Your task to perform on an android device: turn smart compose on in the gmail app Image 0: 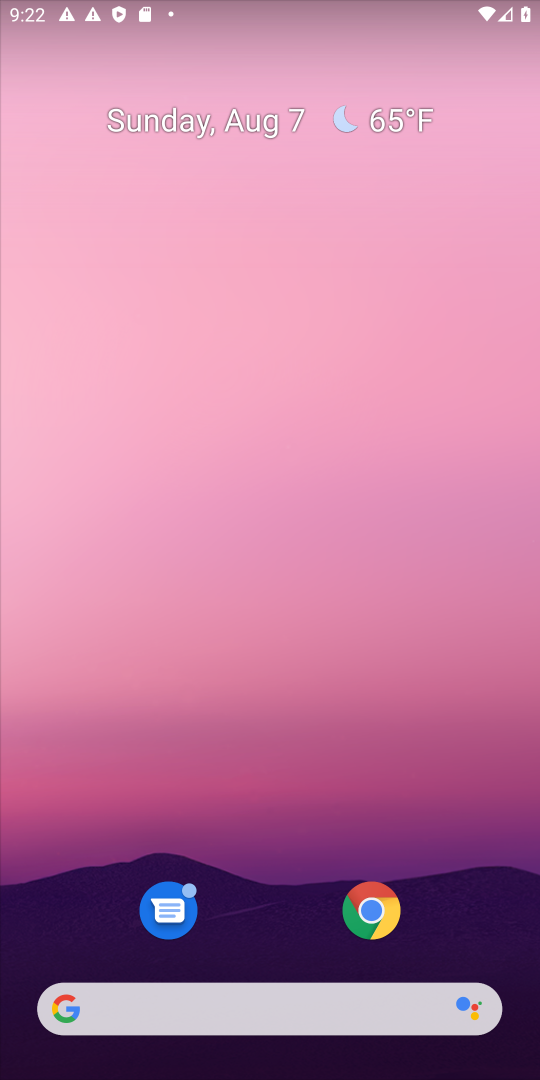
Step 0: drag from (255, 826) to (303, 592)
Your task to perform on an android device: turn smart compose on in the gmail app Image 1: 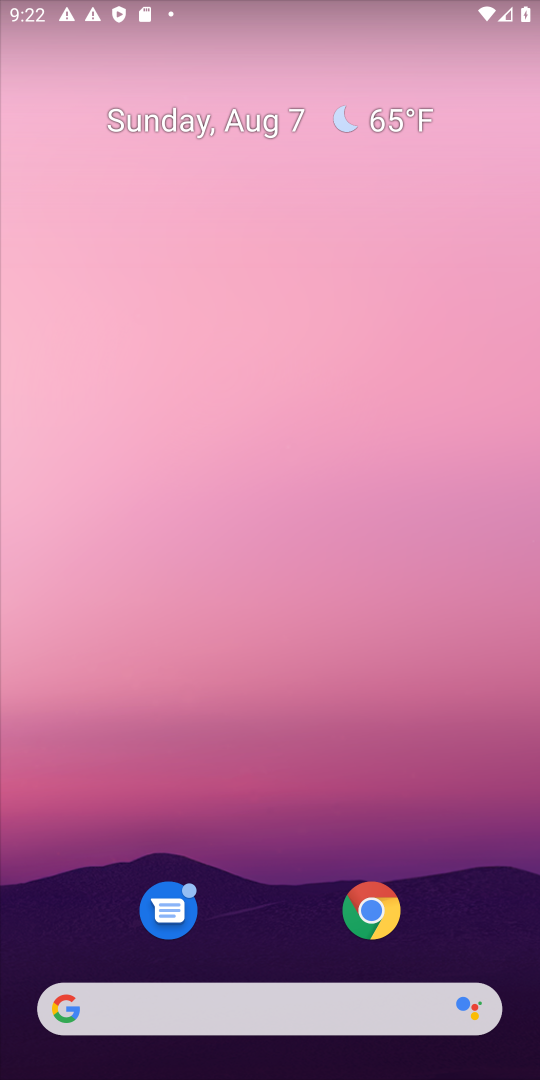
Step 1: drag from (293, 971) to (293, 278)
Your task to perform on an android device: turn smart compose on in the gmail app Image 2: 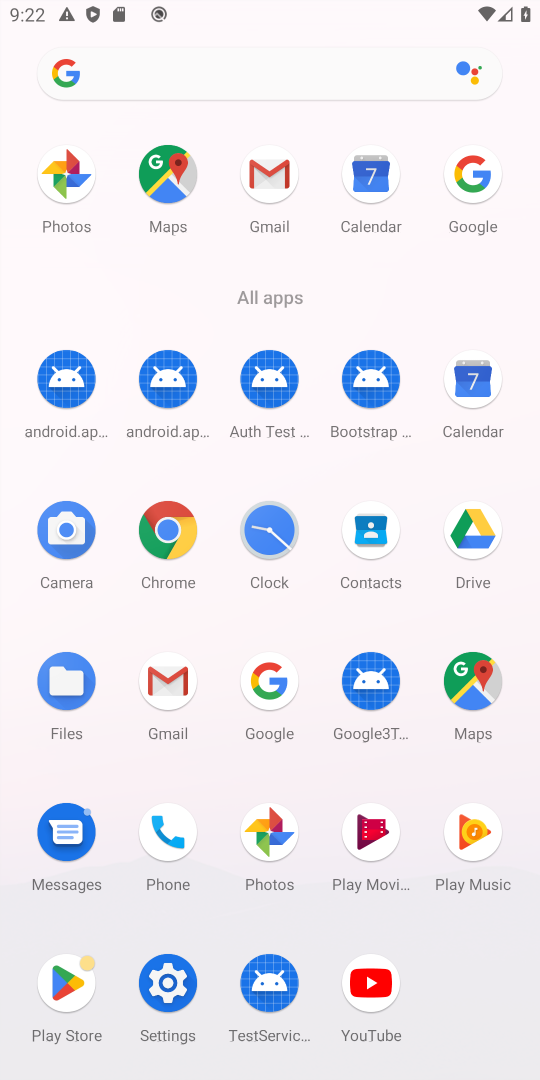
Step 2: click (259, 190)
Your task to perform on an android device: turn smart compose on in the gmail app Image 3: 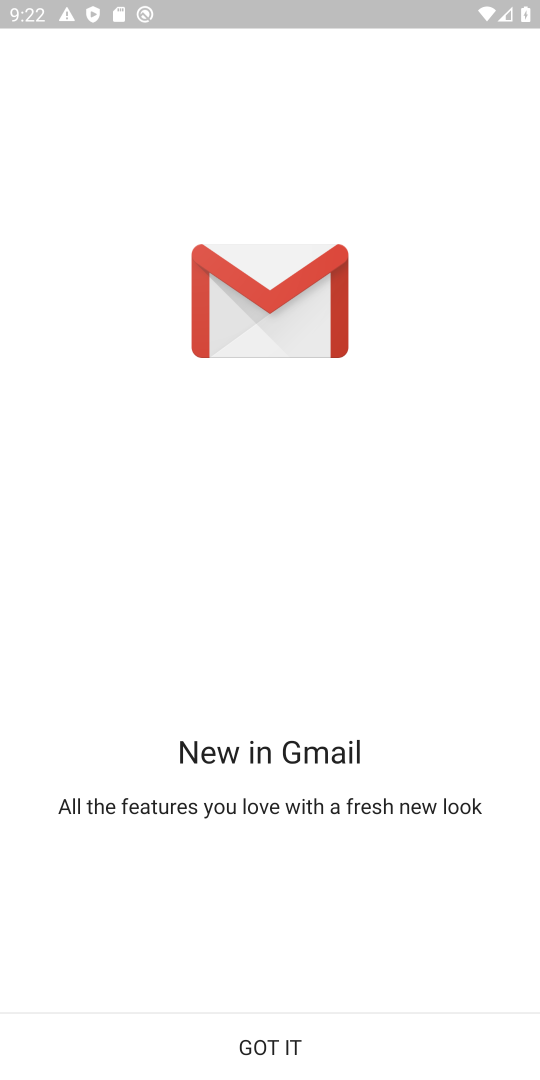
Step 3: click (265, 1042)
Your task to perform on an android device: turn smart compose on in the gmail app Image 4: 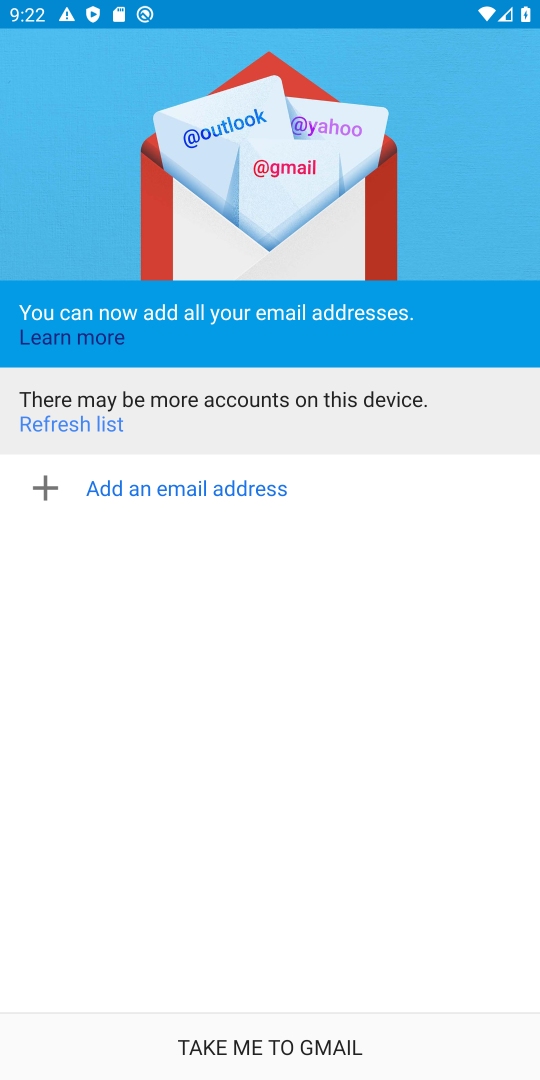
Step 4: click (265, 1042)
Your task to perform on an android device: turn smart compose on in the gmail app Image 5: 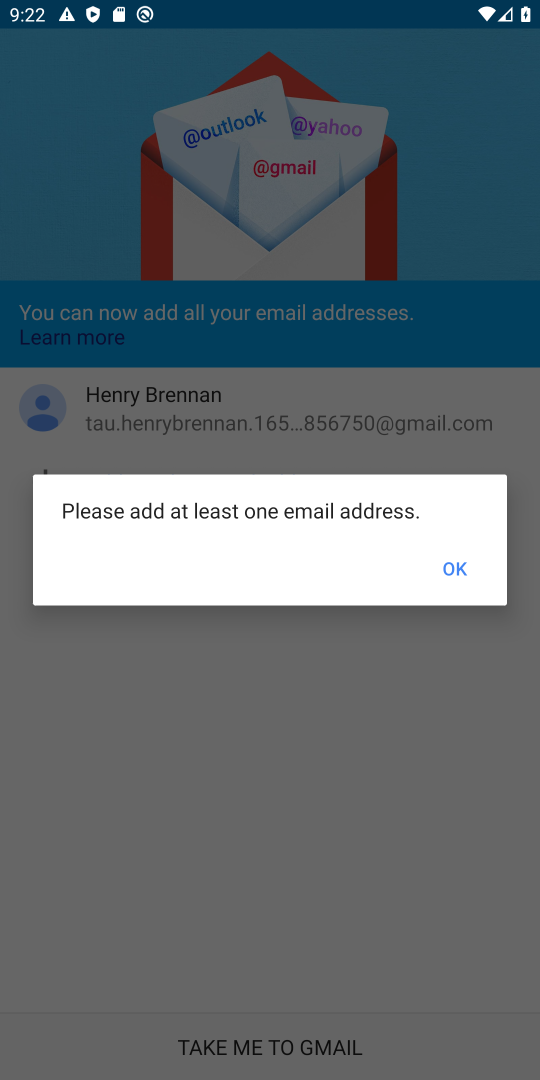
Step 5: click (454, 570)
Your task to perform on an android device: turn smart compose on in the gmail app Image 6: 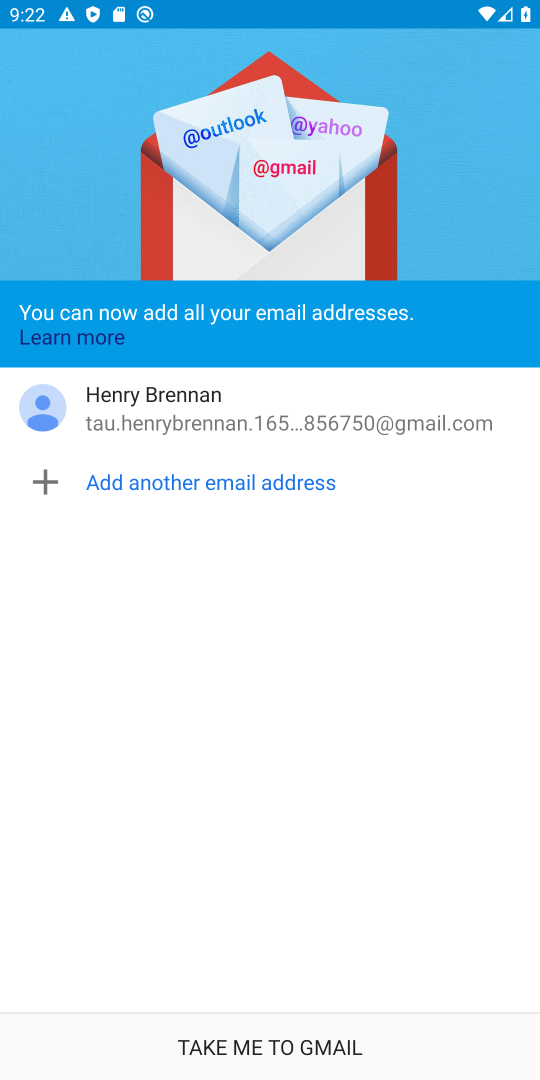
Step 6: click (313, 1053)
Your task to perform on an android device: turn smart compose on in the gmail app Image 7: 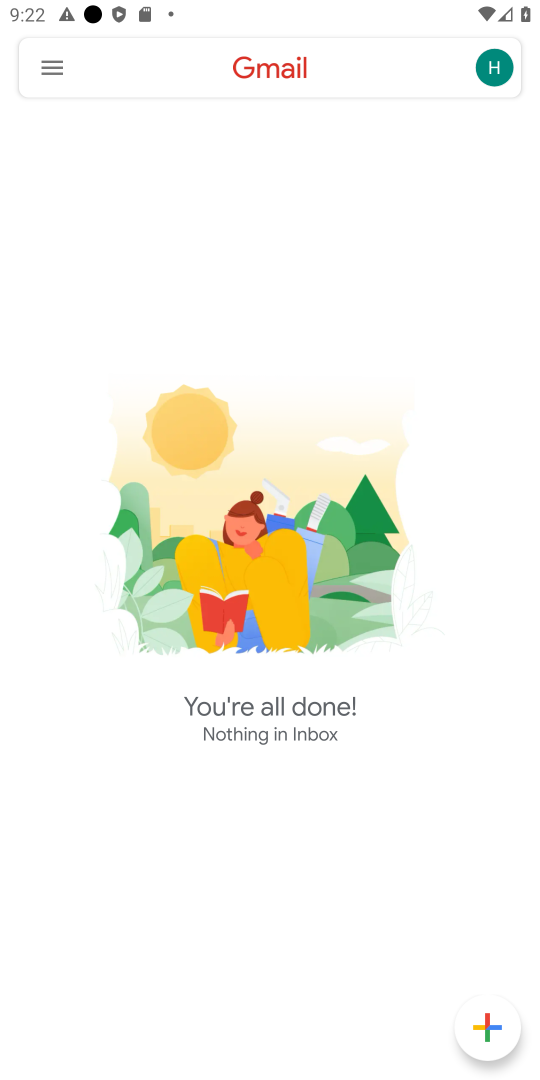
Step 7: click (47, 62)
Your task to perform on an android device: turn smart compose on in the gmail app Image 8: 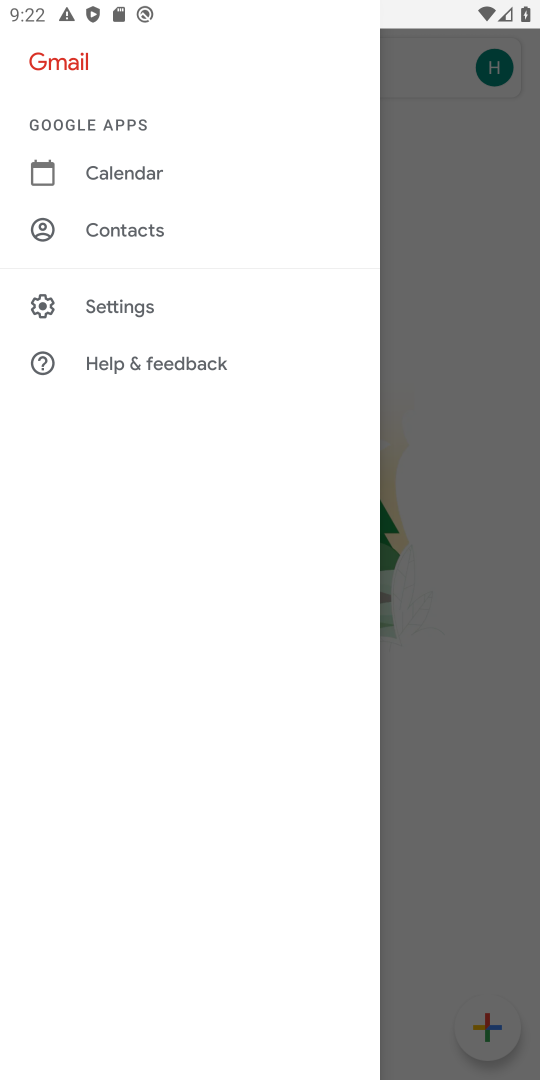
Step 8: click (122, 300)
Your task to perform on an android device: turn smart compose on in the gmail app Image 9: 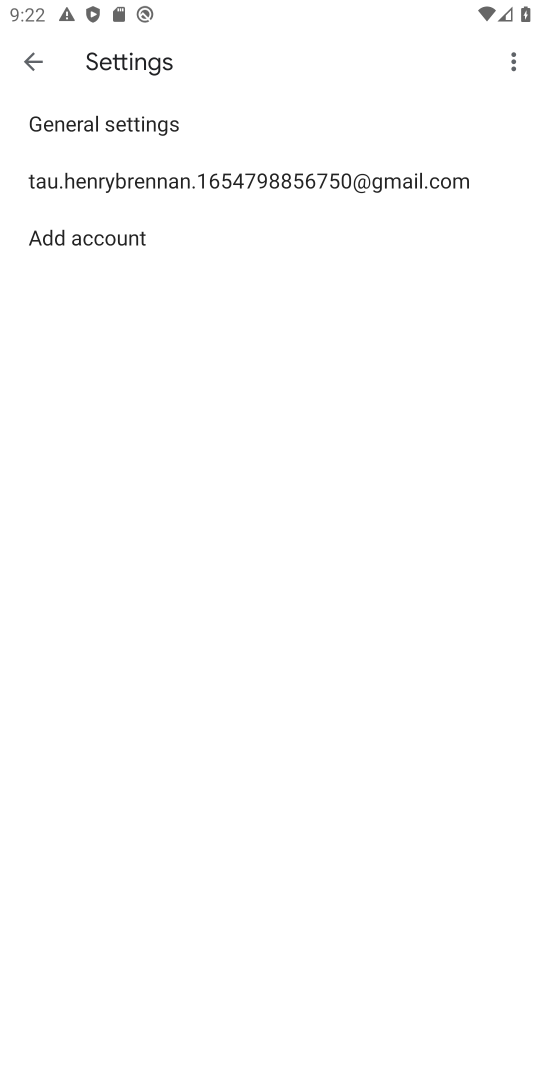
Step 9: click (79, 174)
Your task to perform on an android device: turn smart compose on in the gmail app Image 10: 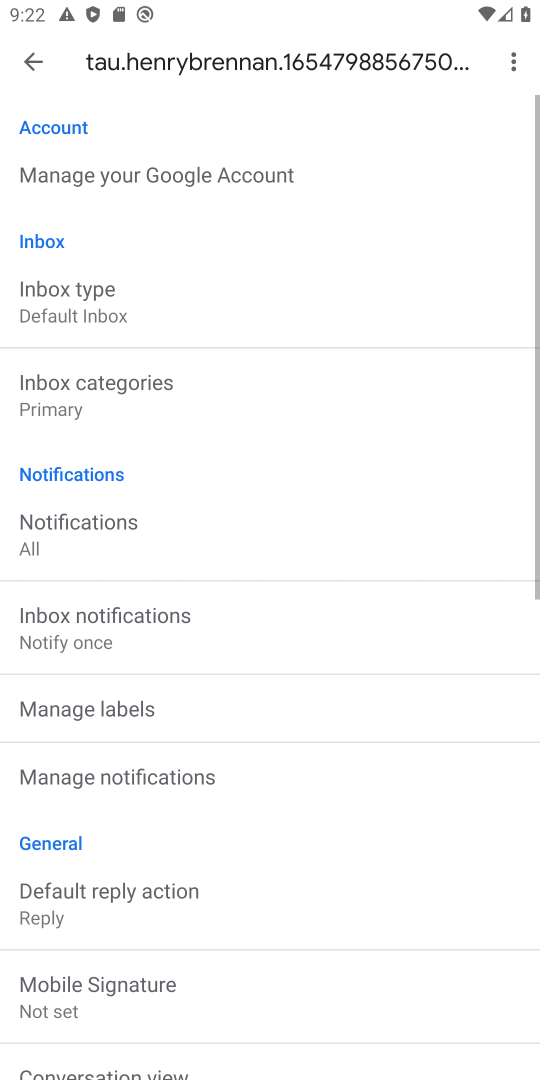
Step 10: task complete